Your task to perform on an android device: toggle pop-ups in chrome Image 0: 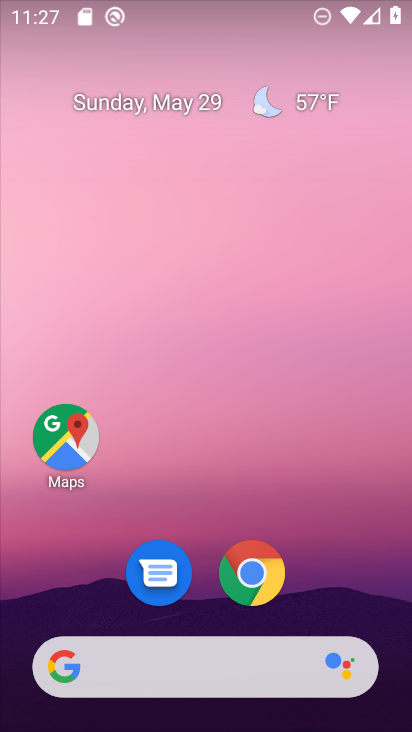
Step 0: drag from (304, 660) to (262, 174)
Your task to perform on an android device: toggle pop-ups in chrome Image 1: 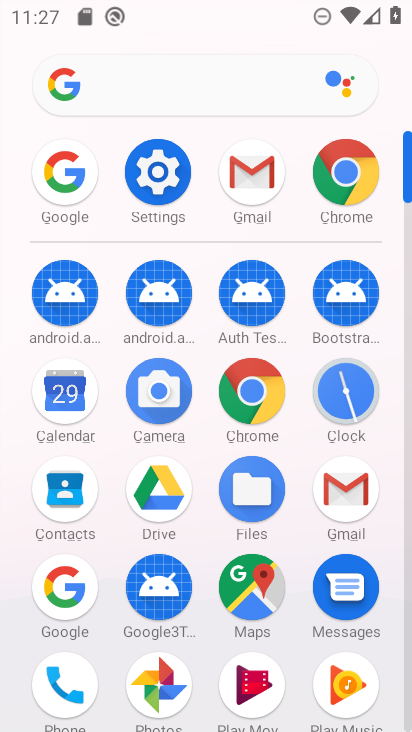
Step 1: click (233, 357)
Your task to perform on an android device: toggle pop-ups in chrome Image 2: 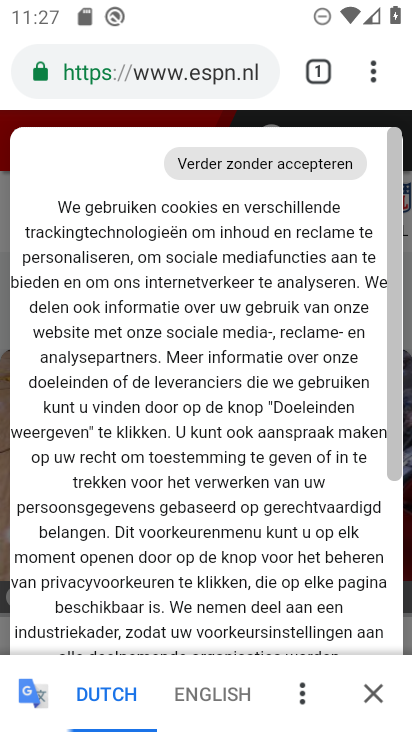
Step 2: click (385, 62)
Your task to perform on an android device: toggle pop-ups in chrome Image 3: 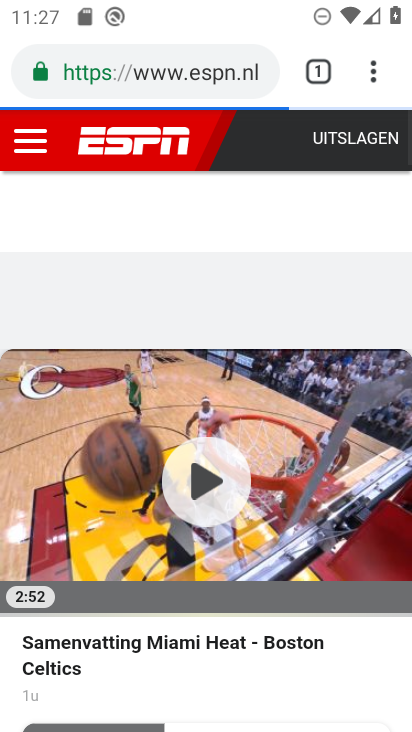
Step 3: click (379, 67)
Your task to perform on an android device: toggle pop-ups in chrome Image 4: 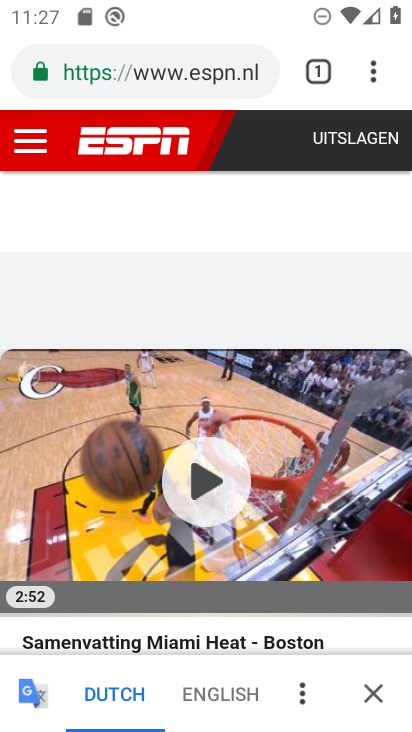
Step 4: drag from (375, 76) to (203, 570)
Your task to perform on an android device: toggle pop-ups in chrome Image 5: 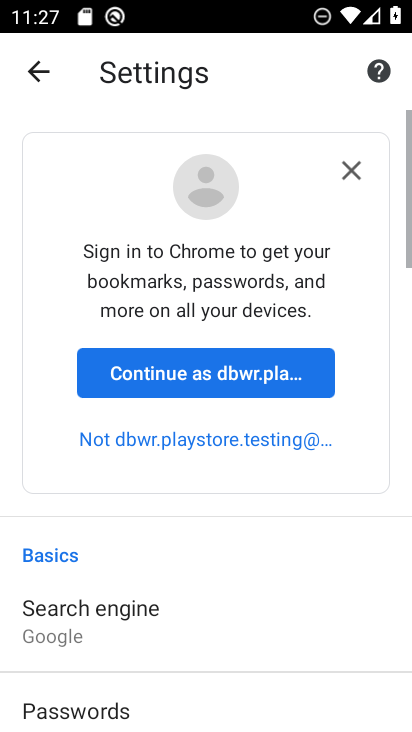
Step 5: drag from (191, 618) to (182, 121)
Your task to perform on an android device: toggle pop-ups in chrome Image 6: 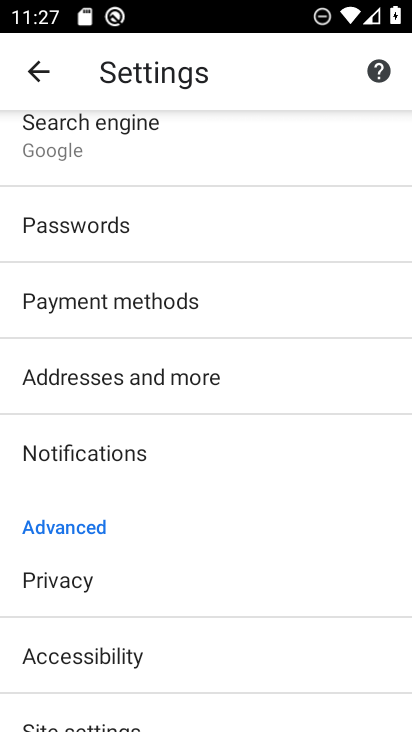
Step 6: drag from (135, 644) to (146, 279)
Your task to perform on an android device: toggle pop-ups in chrome Image 7: 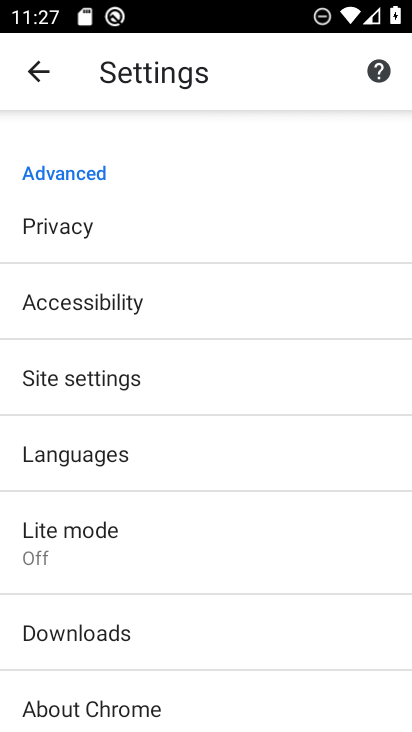
Step 7: click (148, 397)
Your task to perform on an android device: toggle pop-ups in chrome Image 8: 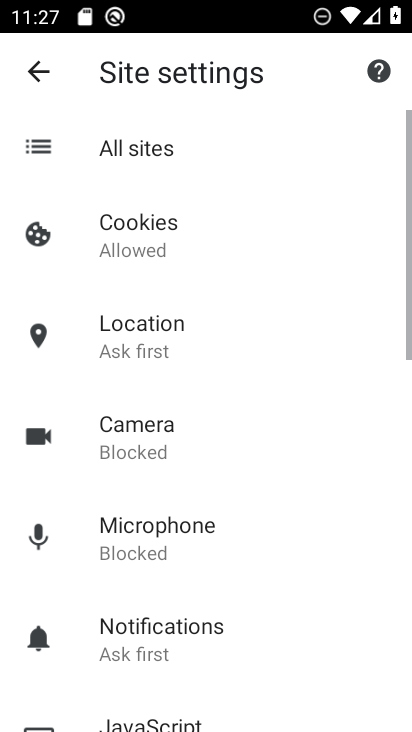
Step 8: drag from (157, 563) to (152, 34)
Your task to perform on an android device: toggle pop-ups in chrome Image 9: 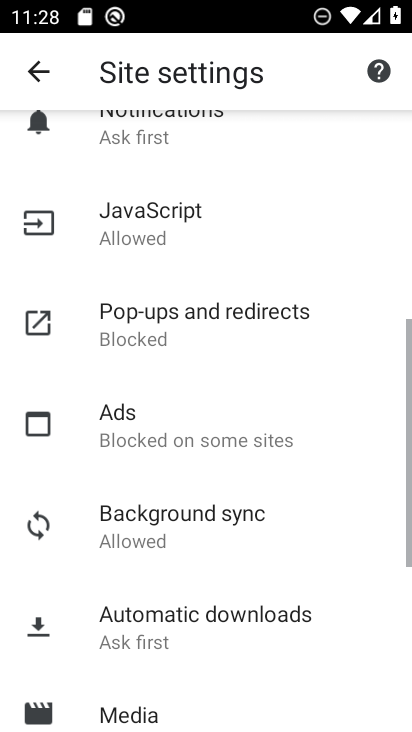
Step 9: click (208, 307)
Your task to perform on an android device: toggle pop-ups in chrome Image 10: 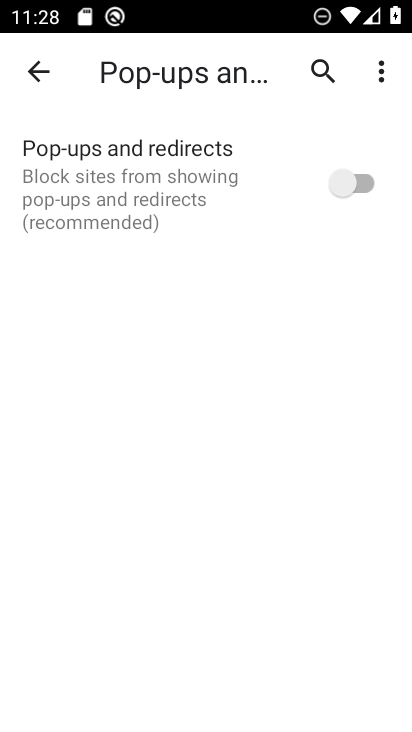
Step 10: click (360, 180)
Your task to perform on an android device: toggle pop-ups in chrome Image 11: 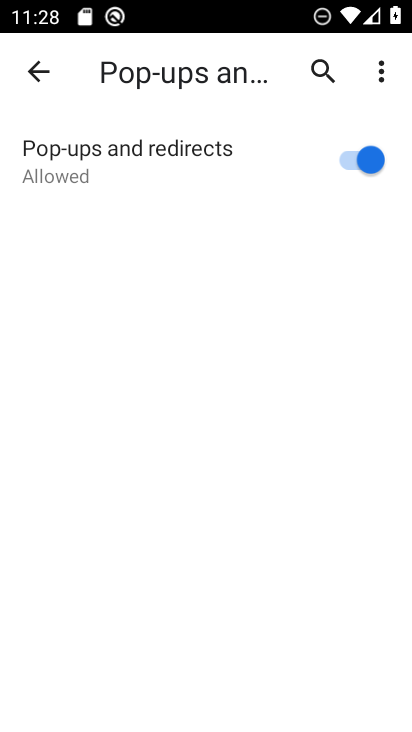
Step 11: task complete